Your task to perform on an android device: turn off translation in the chrome app Image 0: 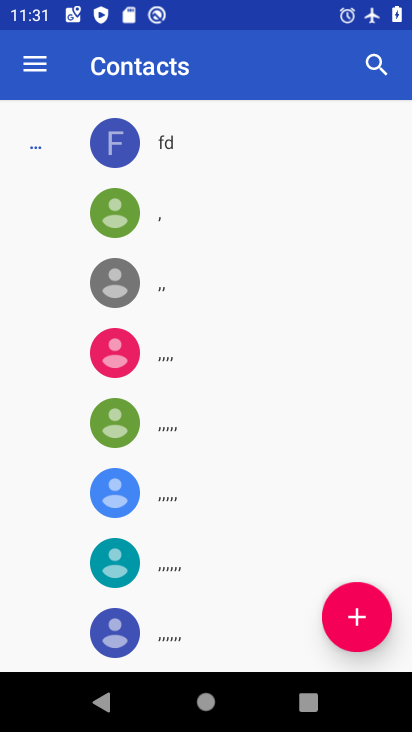
Step 0: press home button
Your task to perform on an android device: turn off translation in the chrome app Image 1: 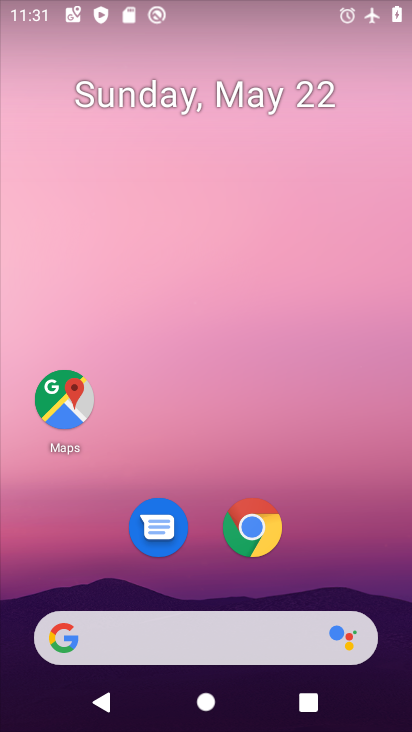
Step 1: click (290, 536)
Your task to perform on an android device: turn off translation in the chrome app Image 2: 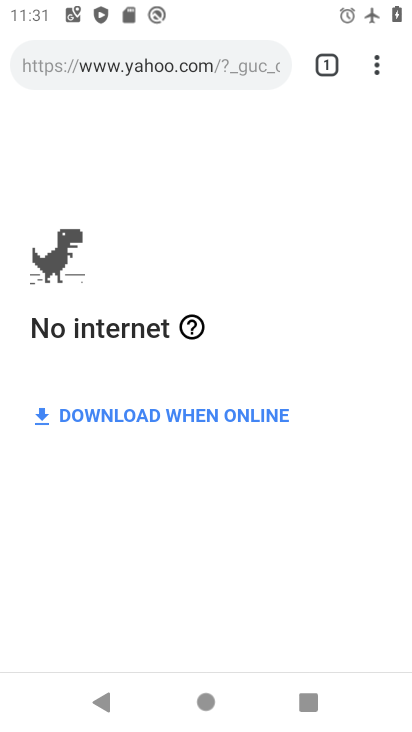
Step 2: task complete